Your task to perform on an android device: Check the weather Image 0: 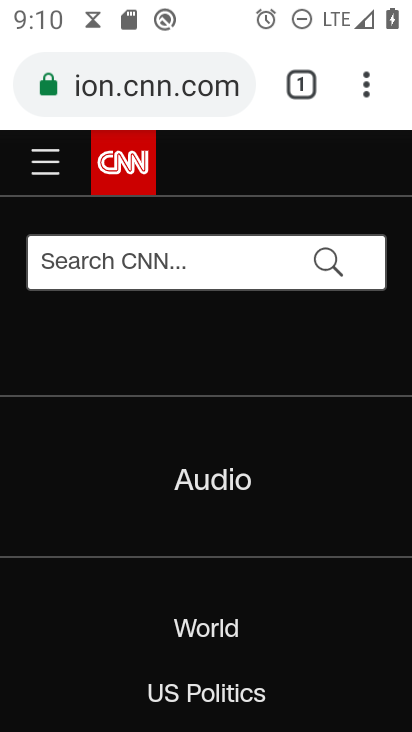
Step 0: press home button
Your task to perform on an android device: Check the weather Image 1: 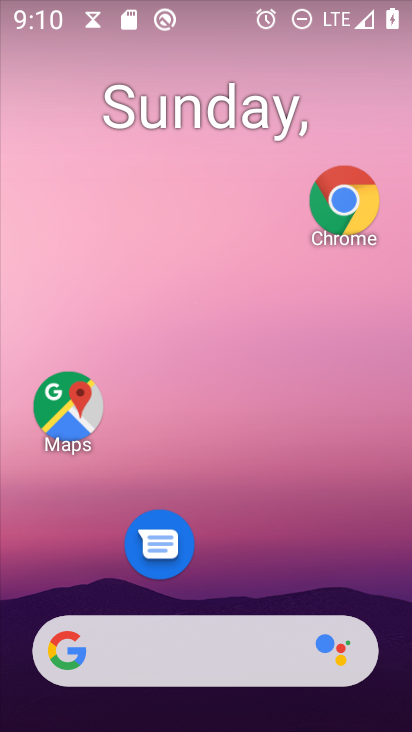
Step 1: click (243, 635)
Your task to perform on an android device: Check the weather Image 2: 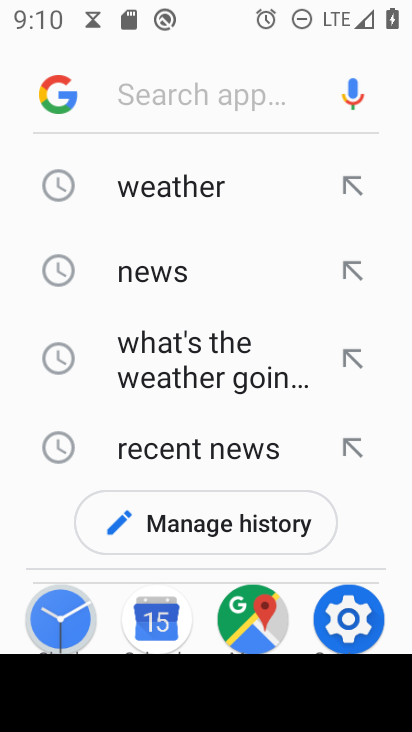
Step 2: type "weather"
Your task to perform on an android device: Check the weather Image 3: 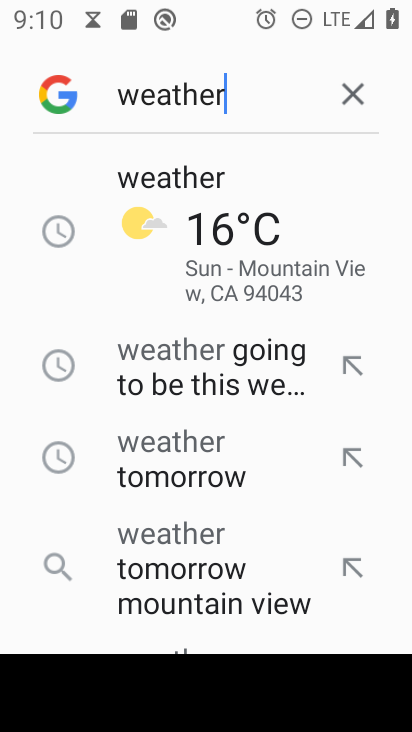
Step 3: click (321, 223)
Your task to perform on an android device: Check the weather Image 4: 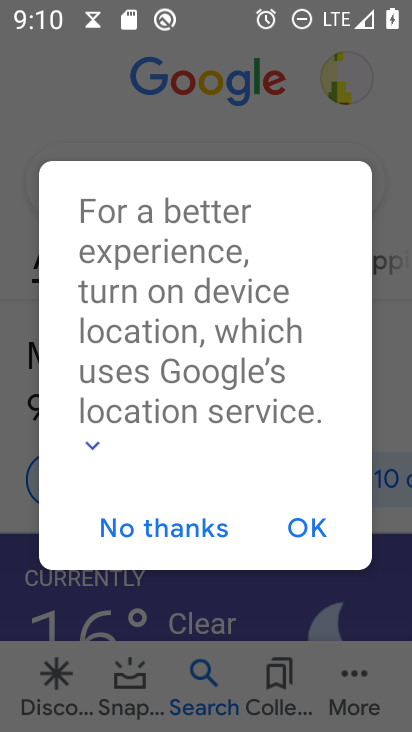
Step 4: click (165, 529)
Your task to perform on an android device: Check the weather Image 5: 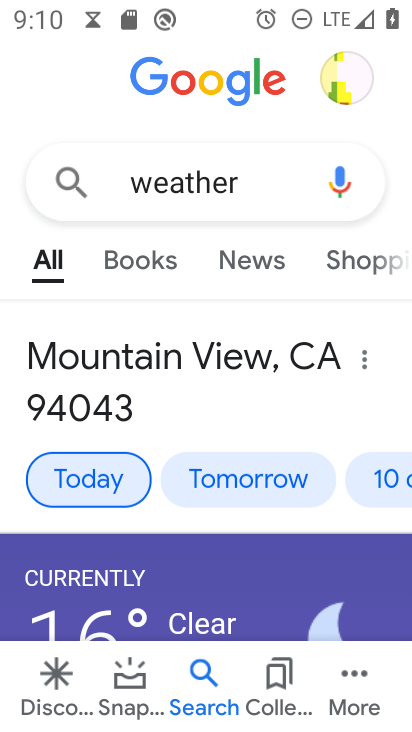
Step 5: task complete